Your task to perform on an android device: find photos in the google photos app Image 0: 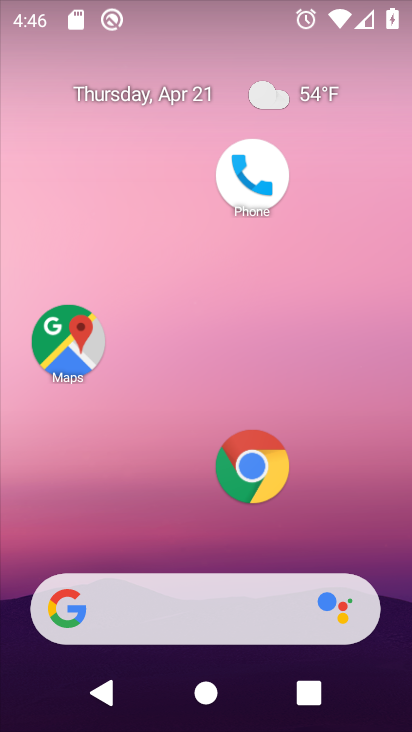
Step 0: drag from (302, 552) to (370, 13)
Your task to perform on an android device: find photos in the google photos app Image 1: 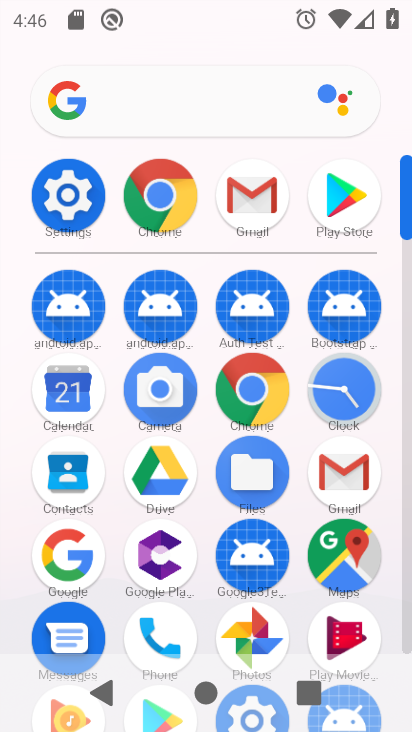
Step 1: click (252, 612)
Your task to perform on an android device: find photos in the google photos app Image 2: 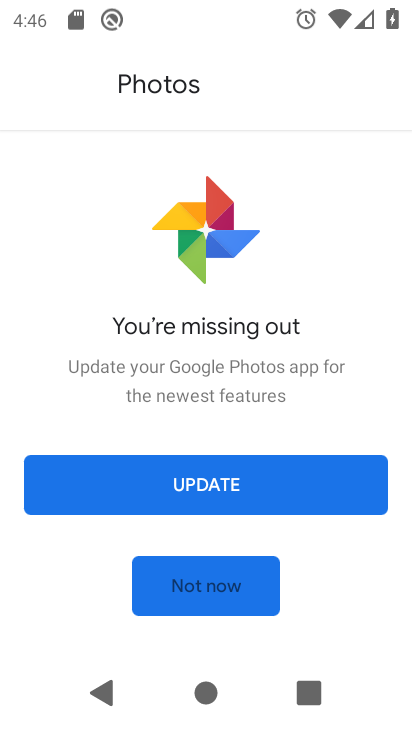
Step 2: click (231, 590)
Your task to perform on an android device: find photos in the google photos app Image 3: 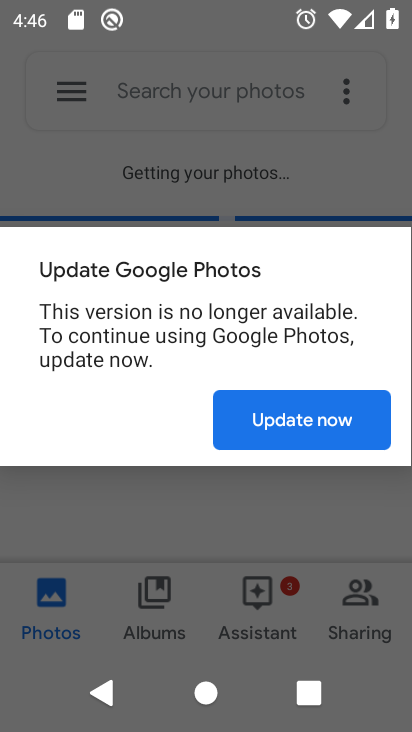
Step 3: click (284, 435)
Your task to perform on an android device: find photos in the google photos app Image 4: 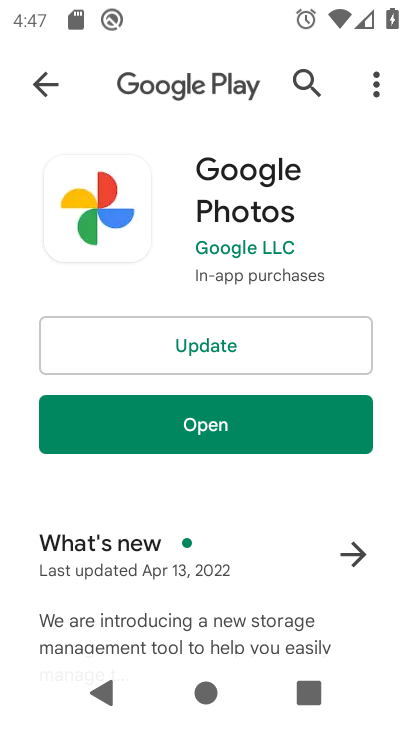
Step 4: click (217, 421)
Your task to perform on an android device: find photos in the google photos app Image 5: 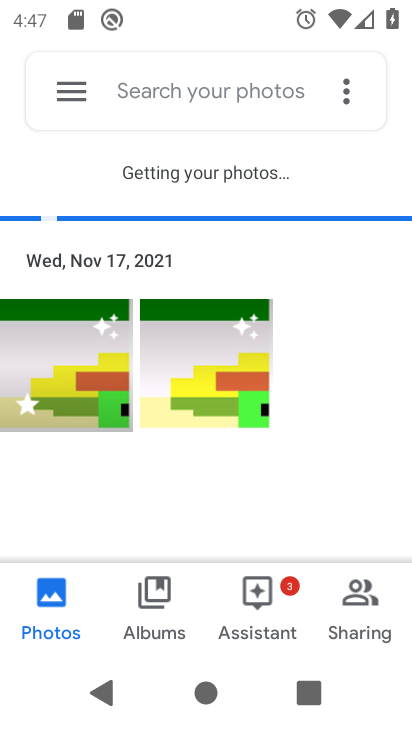
Step 5: click (89, 396)
Your task to perform on an android device: find photos in the google photos app Image 6: 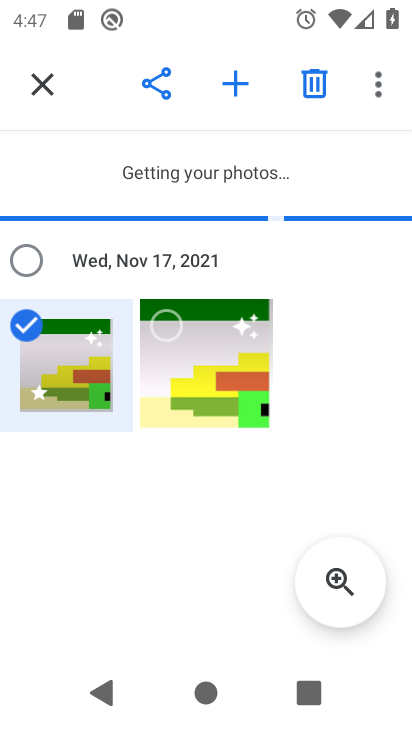
Step 6: task complete